Your task to perform on an android device: Open Youtube and go to "Your channel" Image 0: 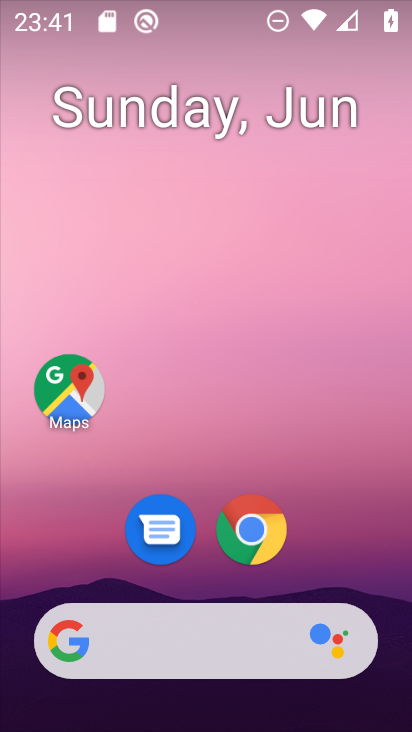
Step 0: drag from (398, 629) to (336, 170)
Your task to perform on an android device: Open Youtube and go to "Your channel" Image 1: 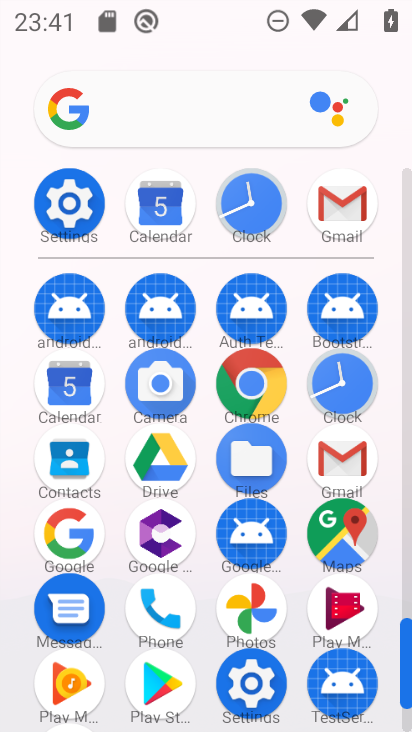
Step 1: click (405, 591)
Your task to perform on an android device: Open Youtube and go to "Your channel" Image 2: 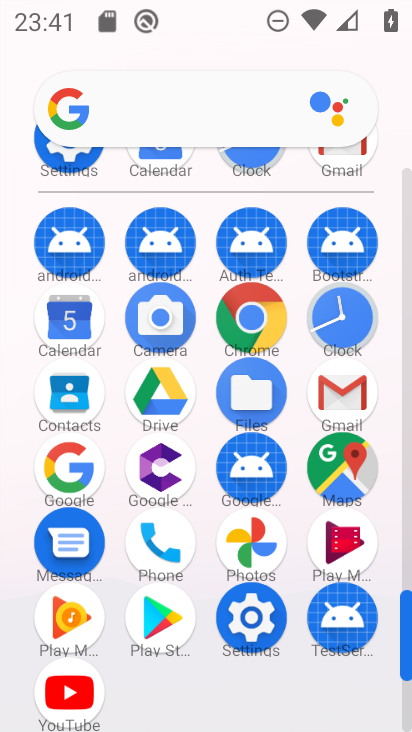
Step 2: click (64, 690)
Your task to perform on an android device: Open Youtube and go to "Your channel" Image 3: 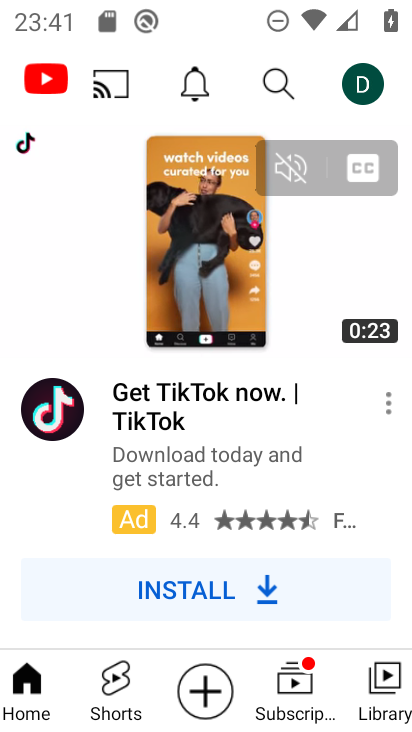
Step 3: click (362, 79)
Your task to perform on an android device: Open Youtube and go to "Your channel" Image 4: 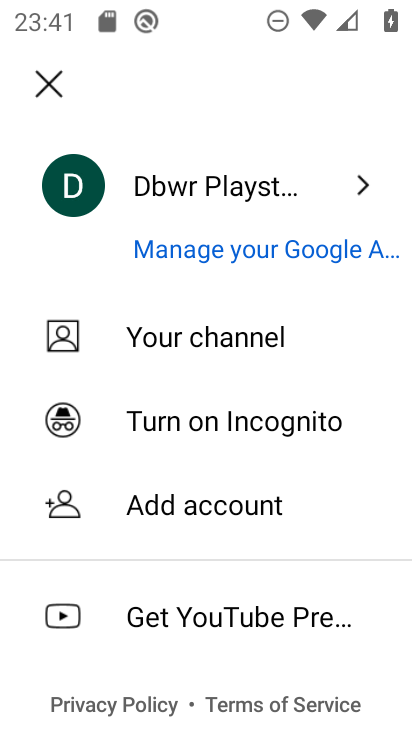
Step 4: click (199, 342)
Your task to perform on an android device: Open Youtube and go to "Your channel" Image 5: 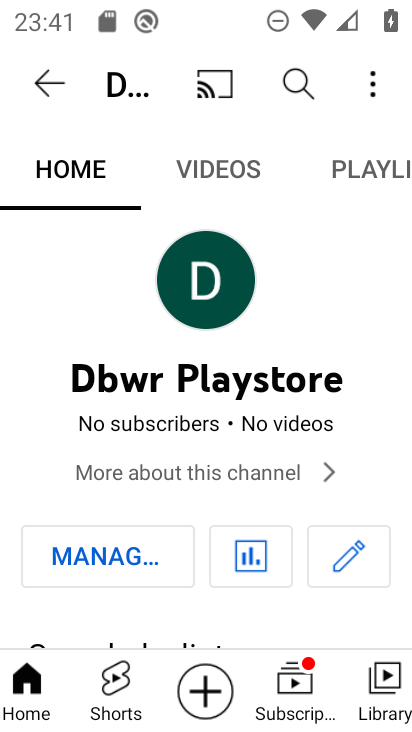
Step 5: task complete